Your task to perform on an android device: open app "Indeed Job Search" (install if not already installed), go to login, and select forgot password Image 0: 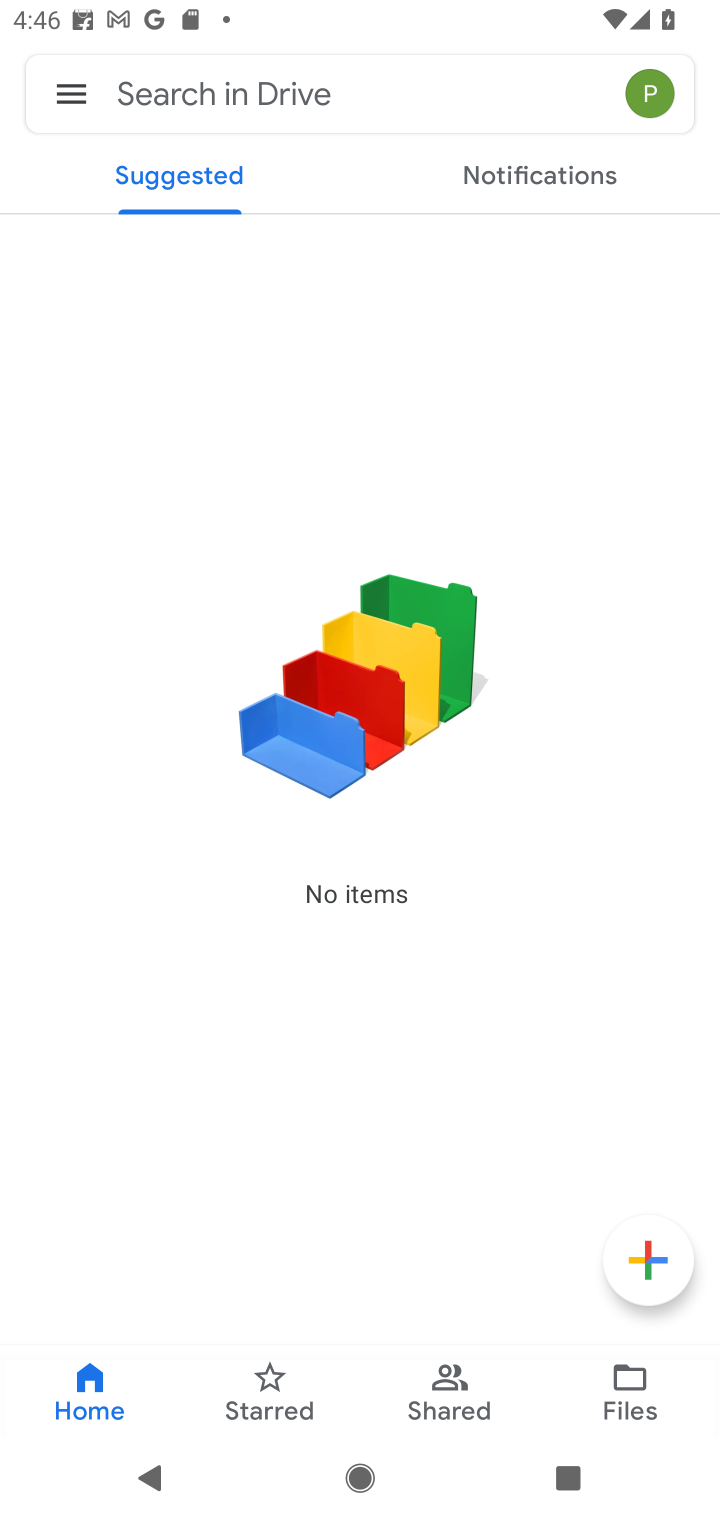
Step 0: press home button
Your task to perform on an android device: open app "Indeed Job Search" (install if not already installed), go to login, and select forgot password Image 1: 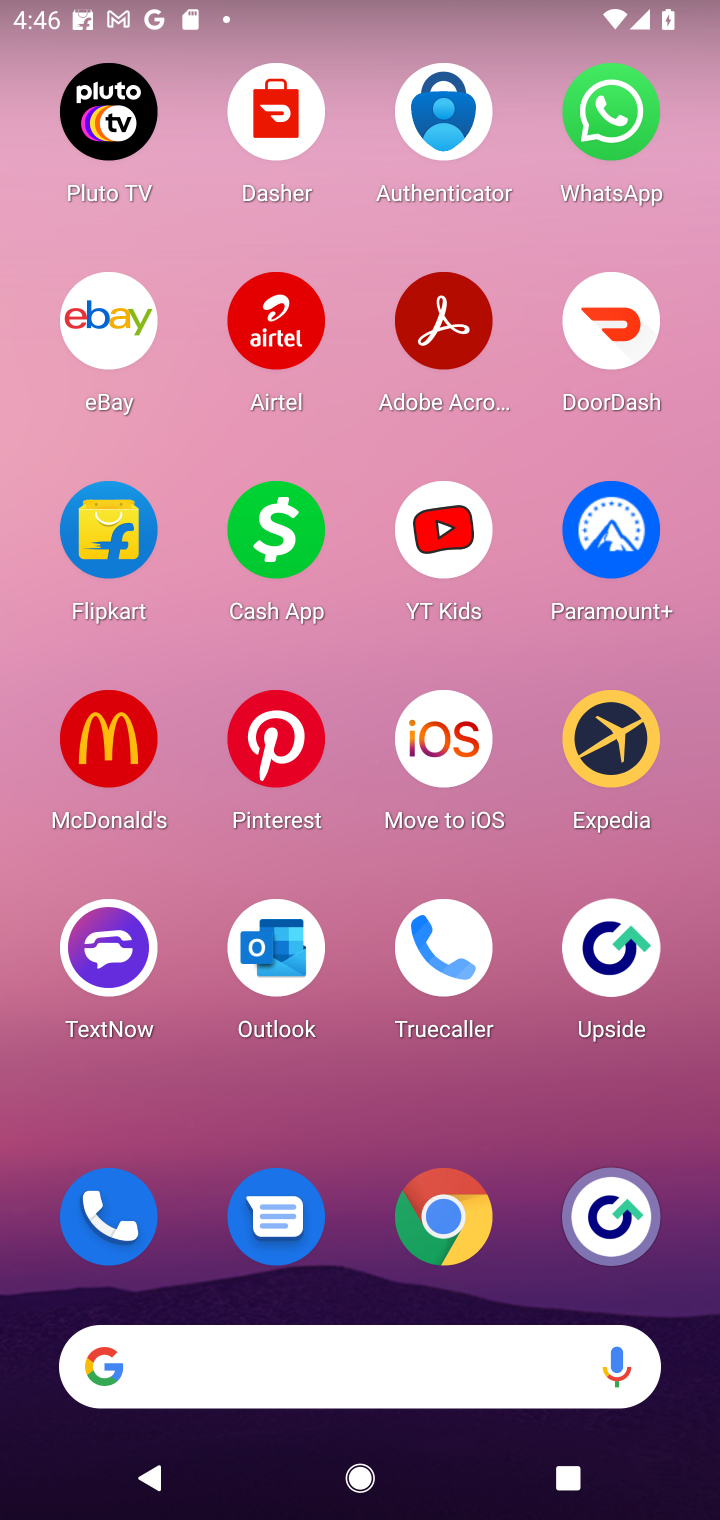
Step 1: drag from (314, 1096) to (450, 190)
Your task to perform on an android device: open app "Indeed Job Search" (install if not already installed), go to login, and select forgot password Image 2: 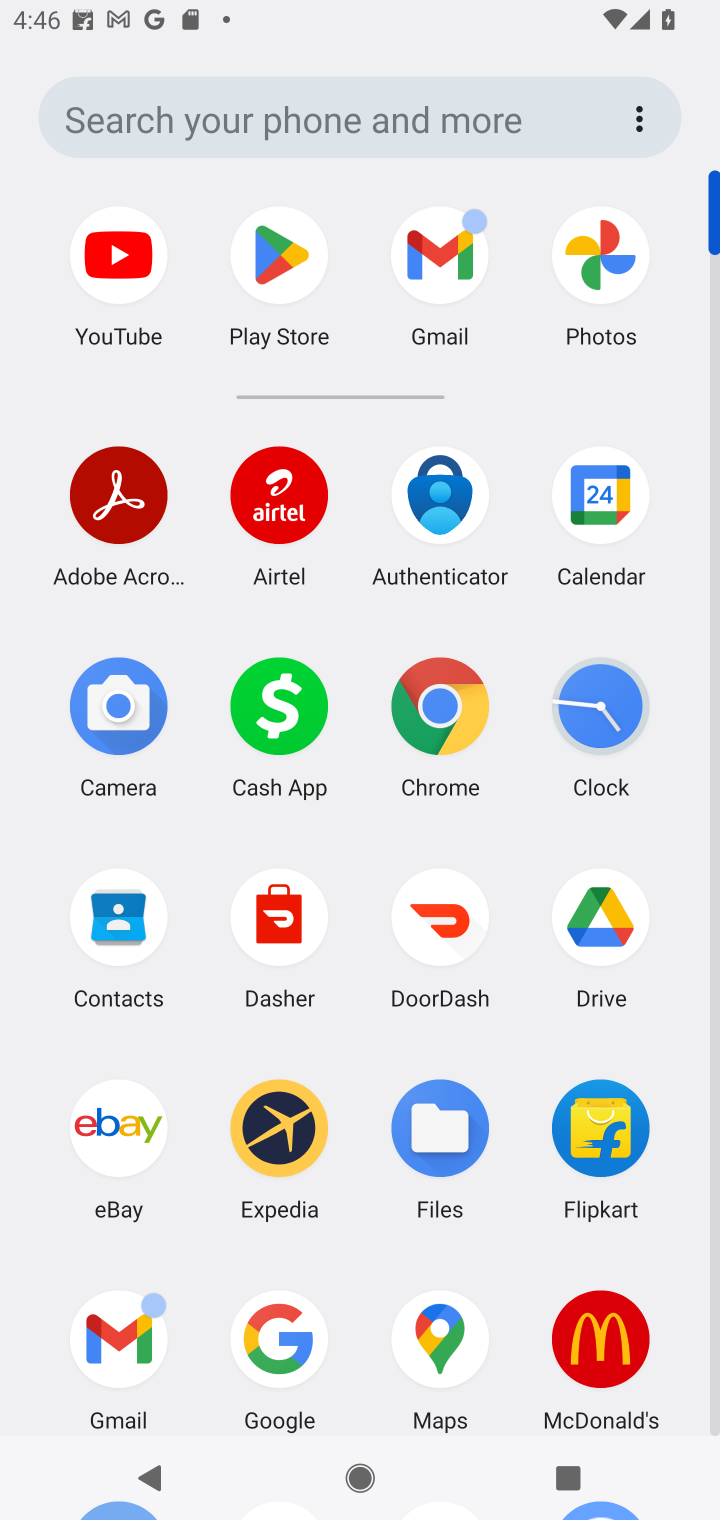
Step 2: click (283, 283)
Your task to perform on an android device: open app "Indeed Job Search" (install if not already installed), go to login, and select forgot password Image 3: 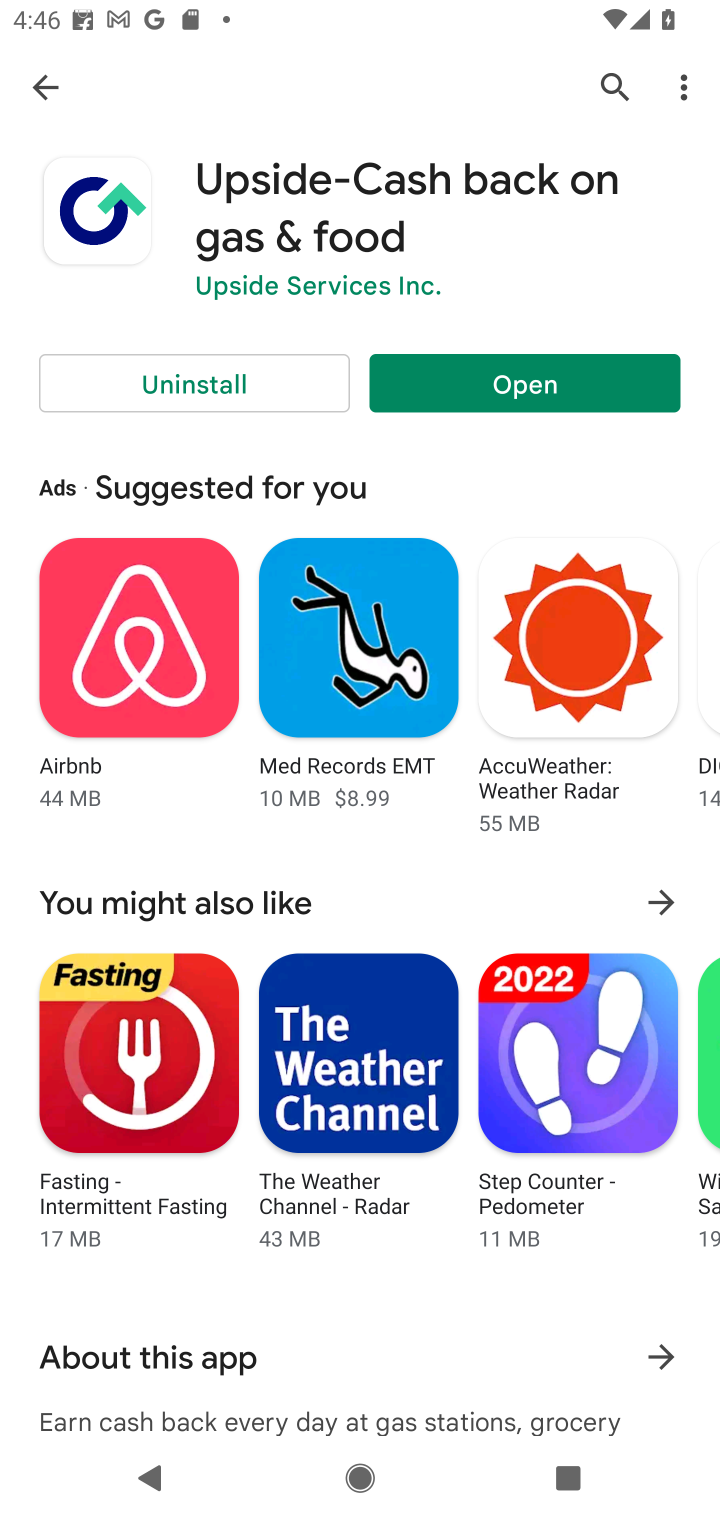
Step 3: click (609, 78)
Your task to perform on an android device: open app "Indeed Job Search" (install if not already installed), go to login, and select forgot password Image 4: 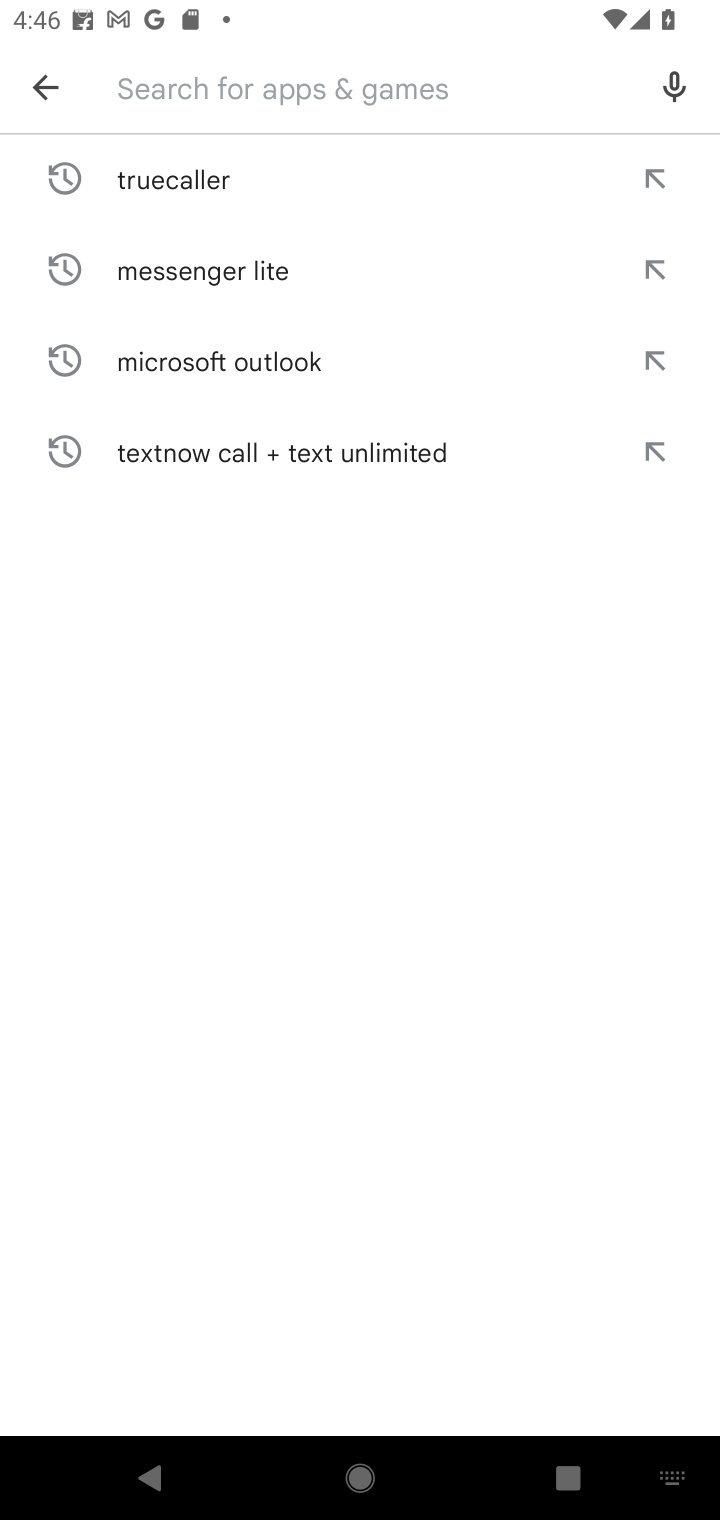
Step 4: type "Indeed Job Search"
Your task to perform on an android device: open app "Indeed Job Search" (install if not already installed), go to login, and select forgot password Image 5: 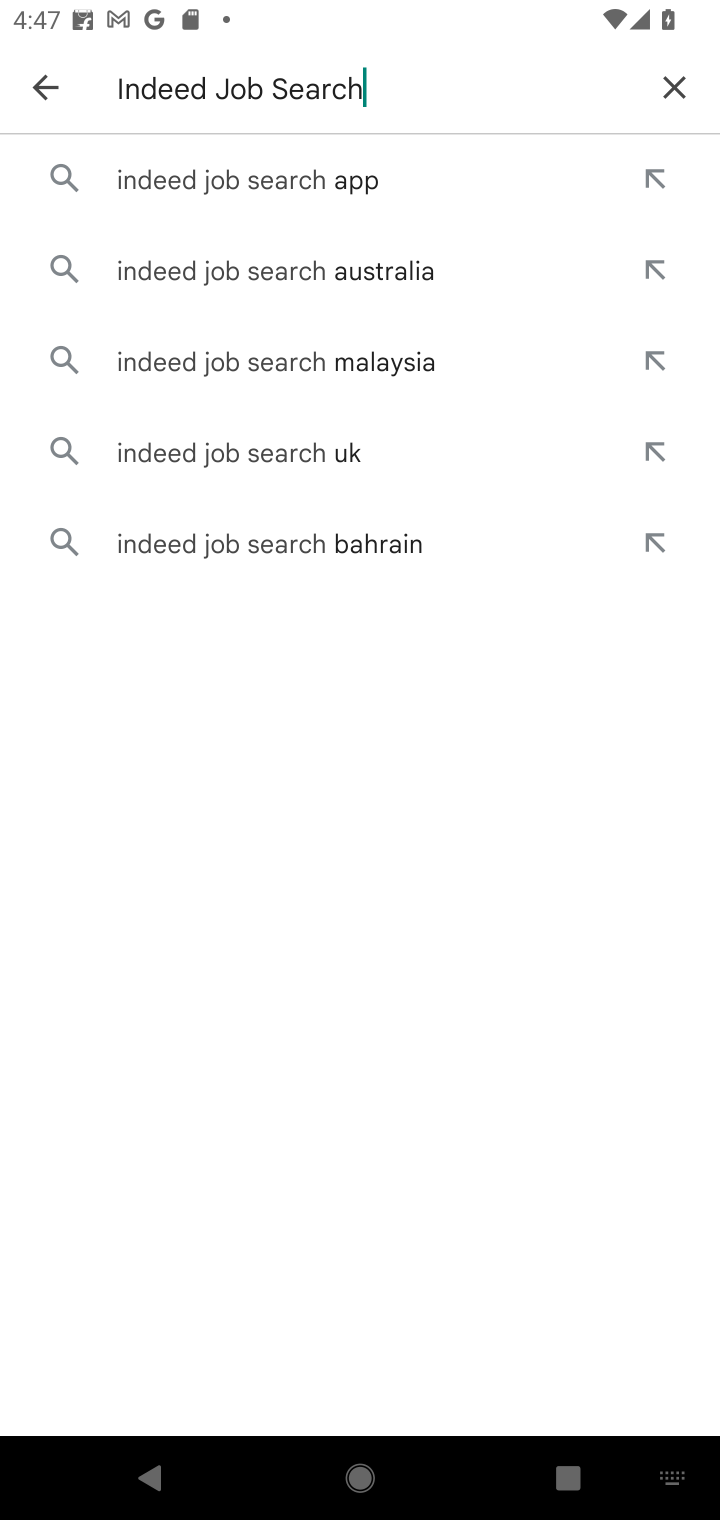
Step 5: click (247, 197)
Your task to perform on an android device: open app "Indeed Job Search" (install if not already installed), go to login, and select forgot password Image 6: 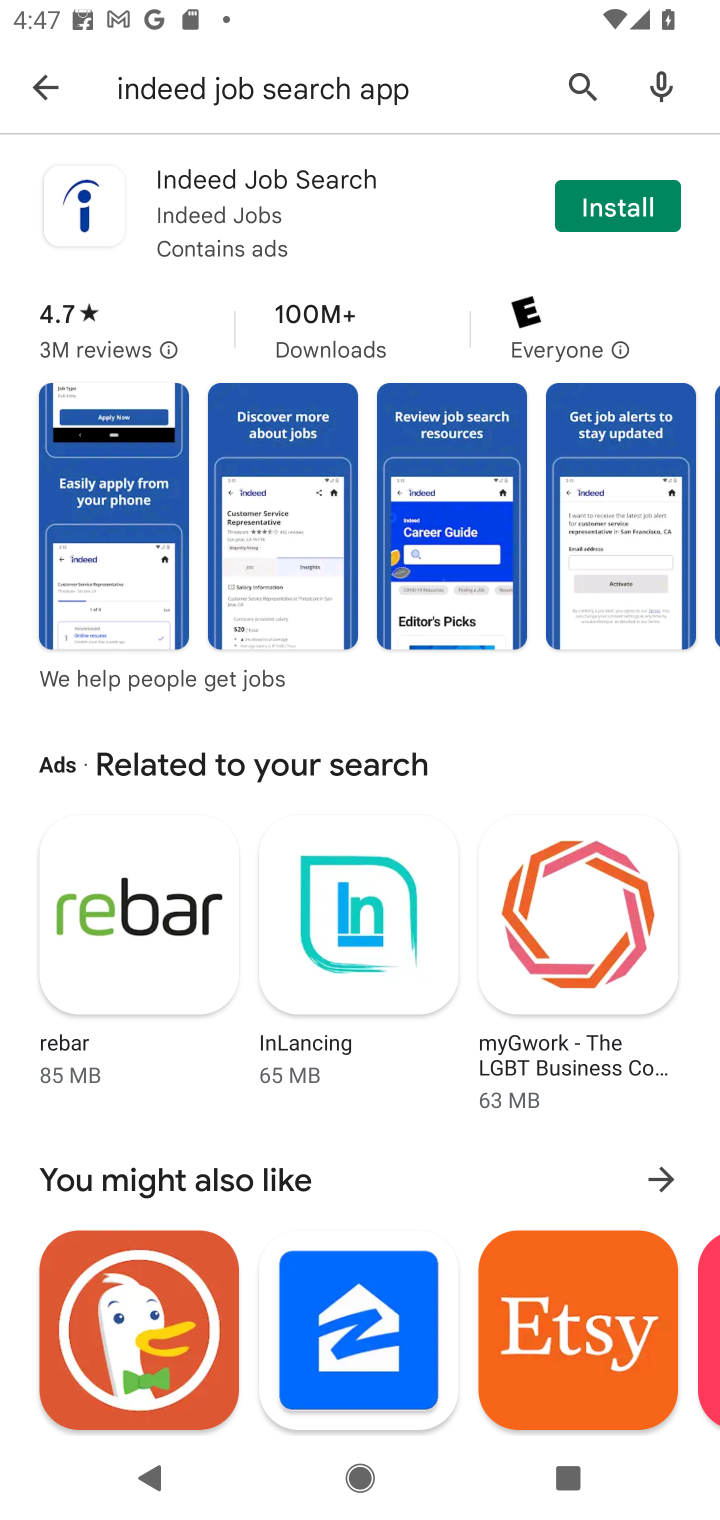
Step 6: click (618, 199)
Your task to perform on an android device: open app "Indeed Job Search" (install if not already installed), go to login, and select forgot password Image 7: 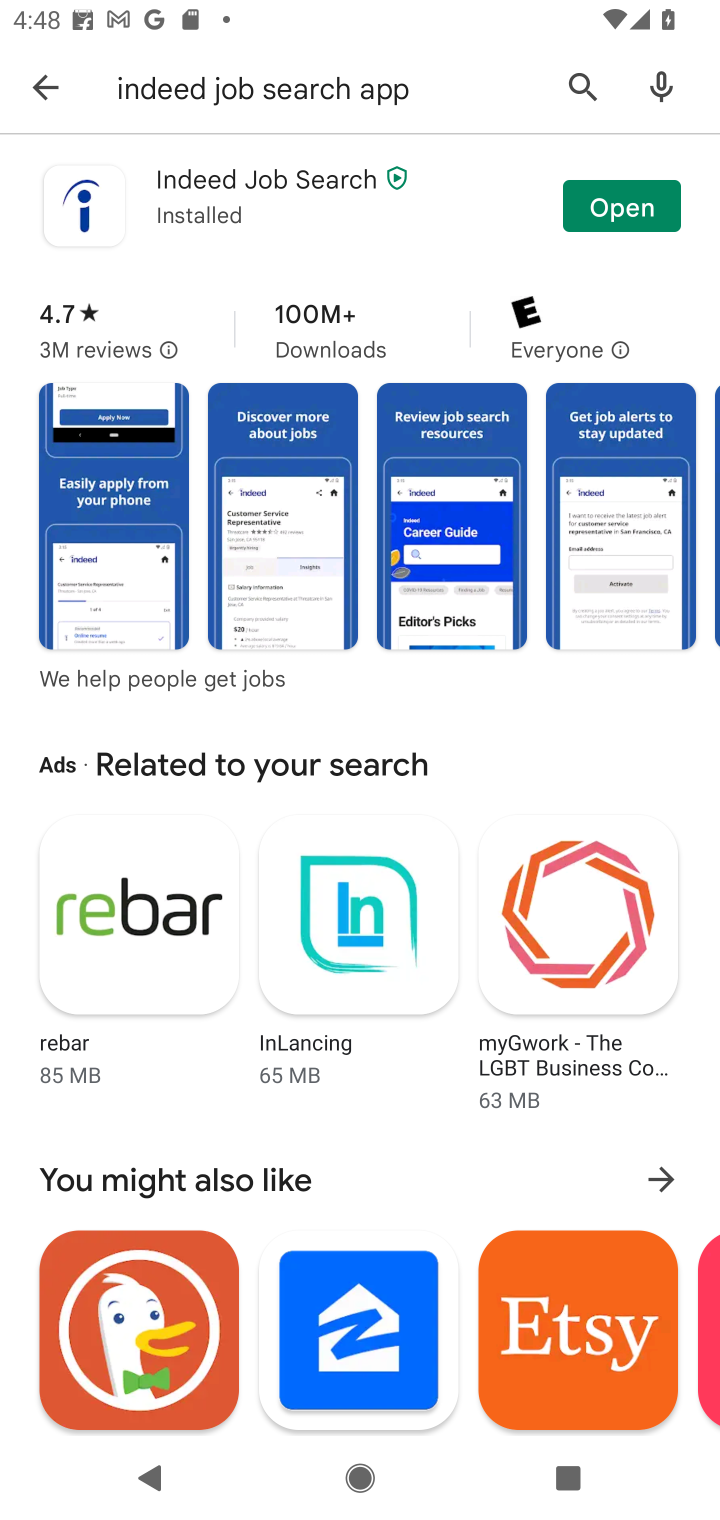
Step 7: click (657, 195)
Your task to perform on an android device: open app "Indeed Job Search" (install if not already installed), go to login, and select forgot password Image 8: 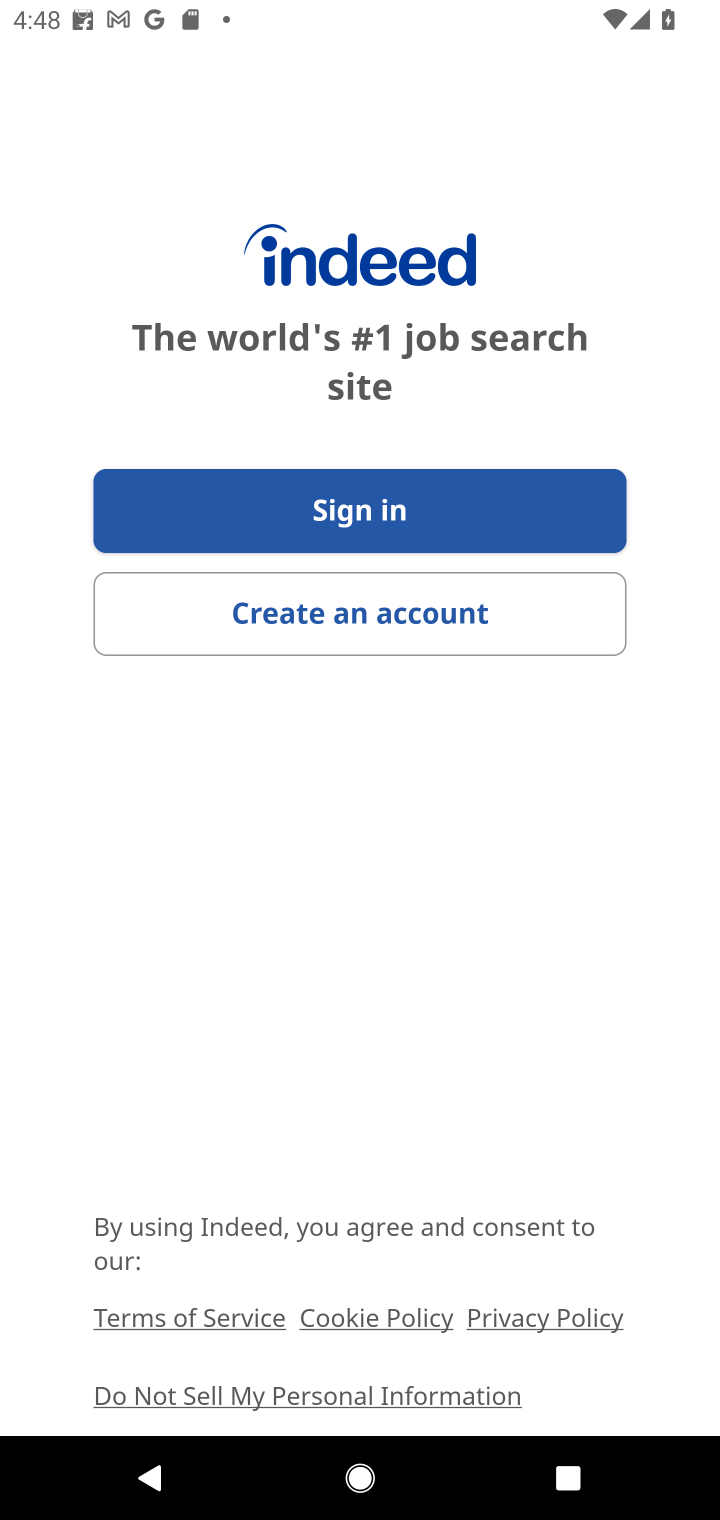
Step 8: task complete